Your task to perform on an android device: turn off javascript in the chrome app Image 0: 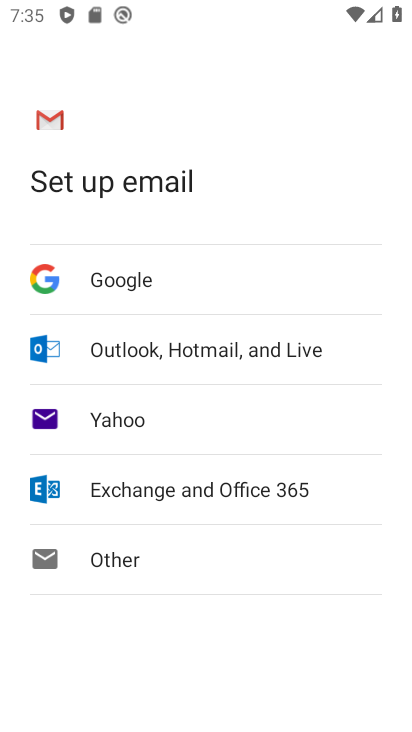
Step 0: press home button
Your task to perform on an android device: turn off javascript in the chrome app Image 1: 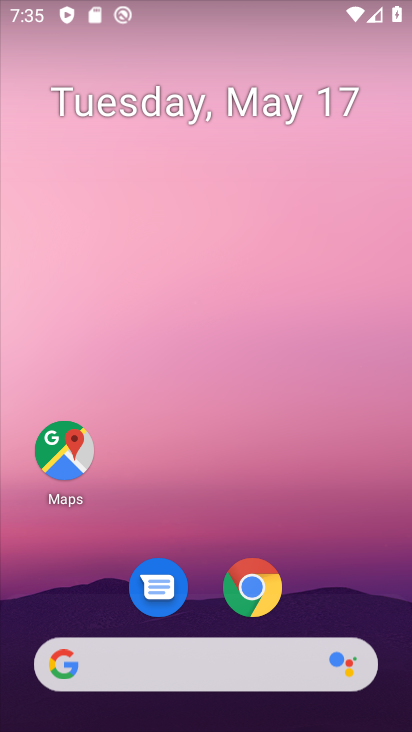
Step 1: click (275, 591)
Your task to perform on an android device: turn off javascript in the chrome app Image 2: 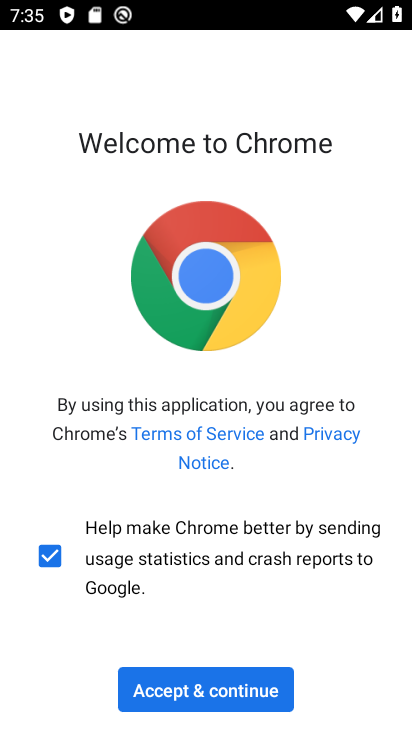
Step 2: click (229, 679)
Your task to perform on an android device: turn off javascript in the chrome app Image 3: 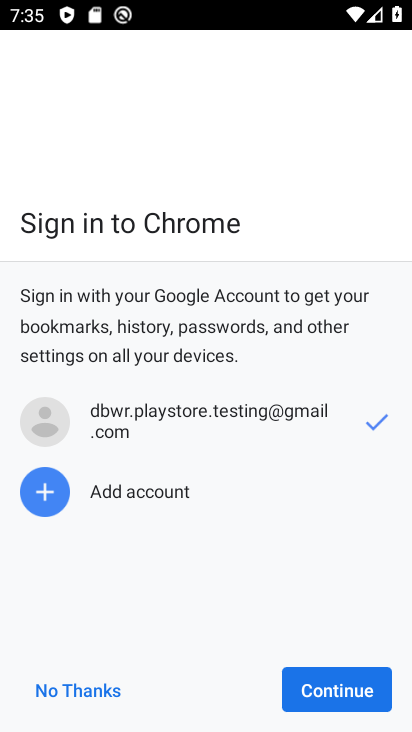
Step 3: click (323, 682)
Your task to perform on an android device: turn off javascript in the chrome app Image 4: 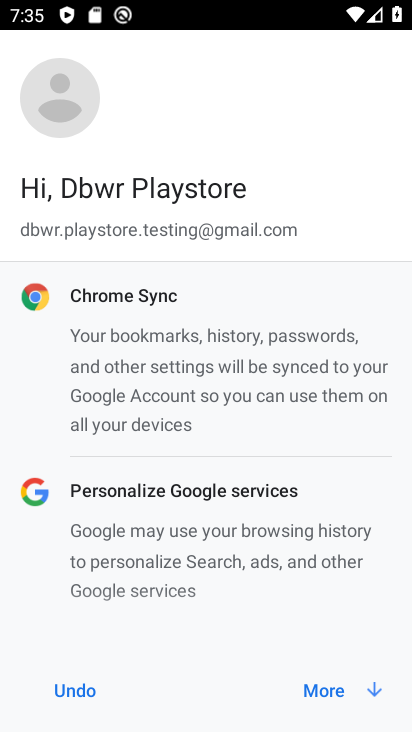
Step 4: click (323, 680)
Your task to perform on an android device: turn off javascript in the chrome app Image 5: 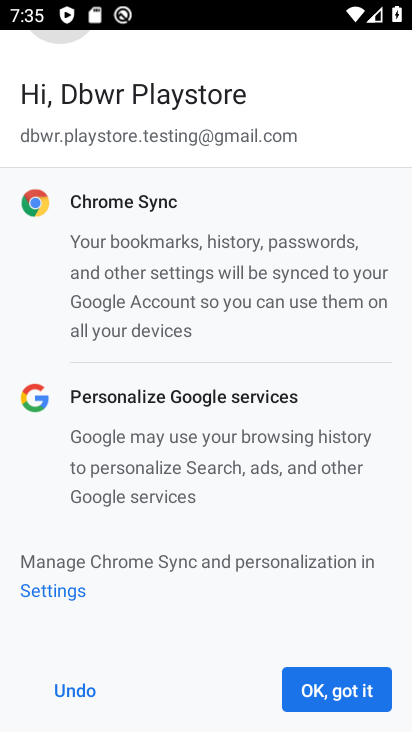
Step 5: click (322, 679)
Your task to perform on an android device: turn off javascript in the chrome app Image 6: 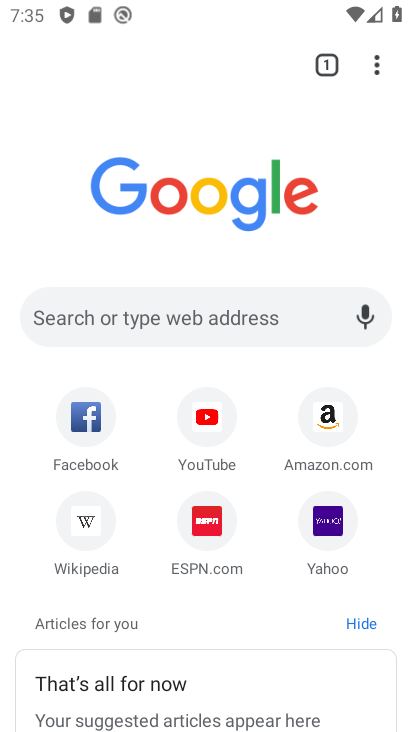
Step 6: drag from (383, 64) to (192, 558)
Your task to perform on an android device: turn off javascript in the chrome app Image 7: 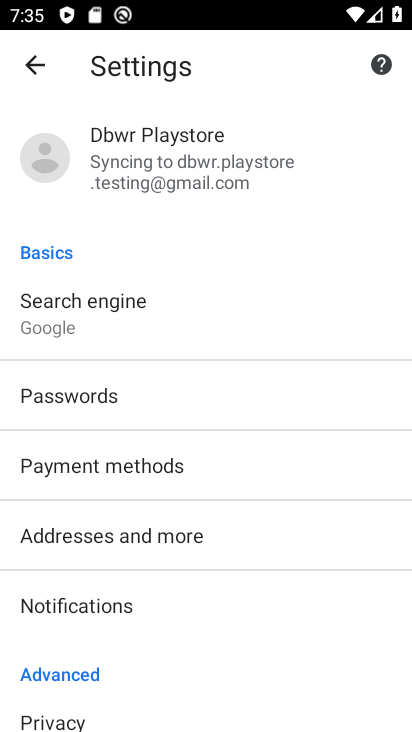
Step 7: drag from (117, 576) to (223, 194)
Your task to perform on an android device: turn off javascript in the chrome app Image 8: 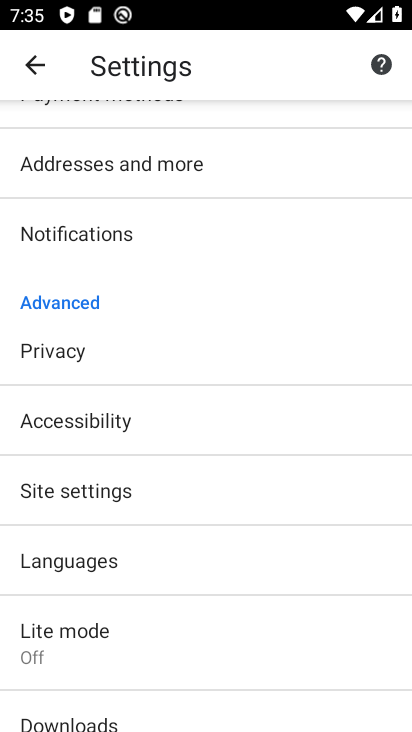
Step 8: click (116, 487)
Your task to perform on an android device: turn off javascript in the chrome app Image 9: 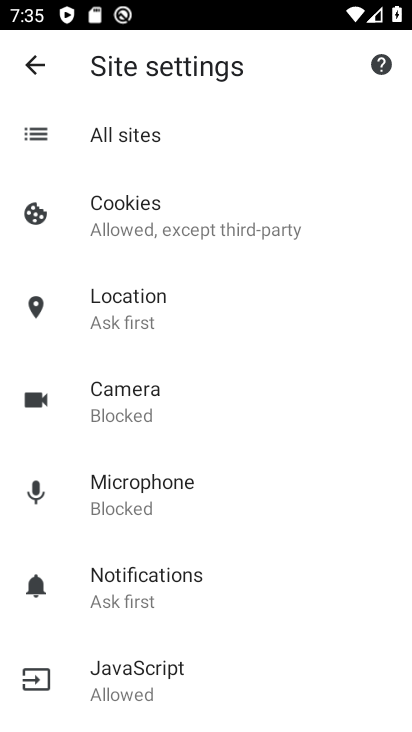
Step 9: click (145, 686)
Your task to perform on an android device: turn off javascript in the chrome app Image 10: 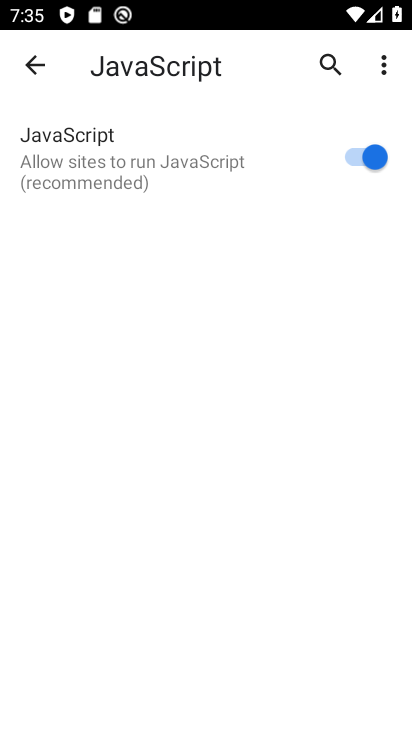
Step 10: click (354, 158)
Your task to perform on an android device: turn off javascript in the chrome app Image 11: 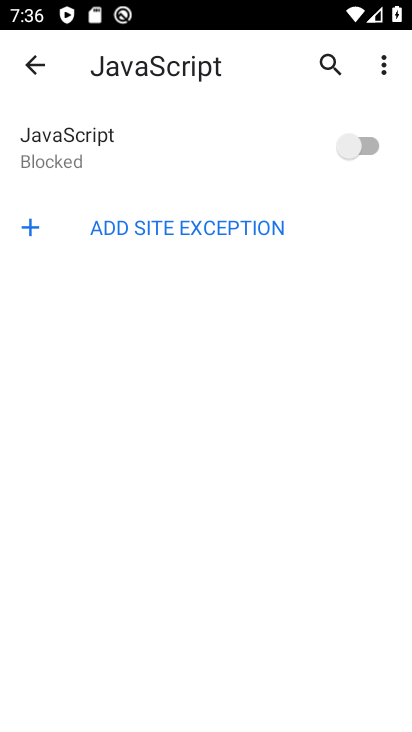
Step 11: press home button
Your task to perform on an android device: turn off javascript in the chrome app Image 12: 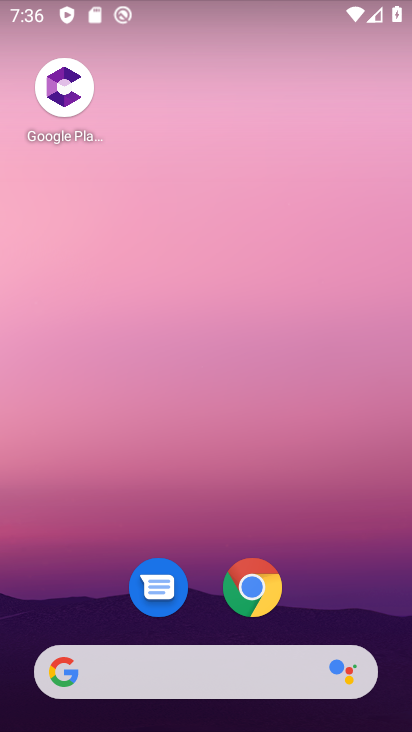
Step 12: click (240, 578)
Your task to perform on an android device: turn off javascript in the chrome app Image 13: 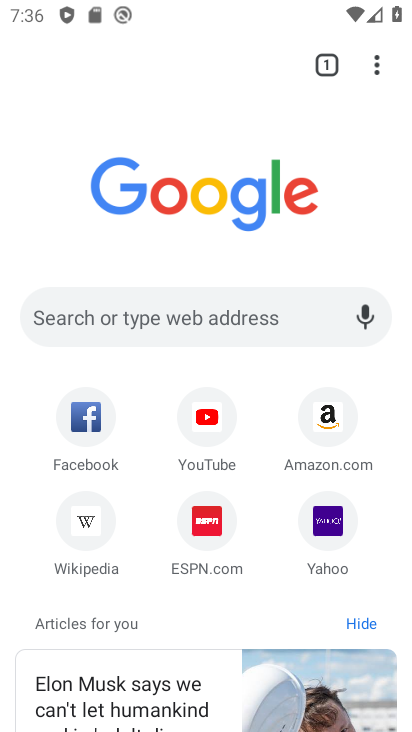
Step 13: click (375, 70)
Your task to perform on an android device: turn off javascript in the chrome app Image 14: 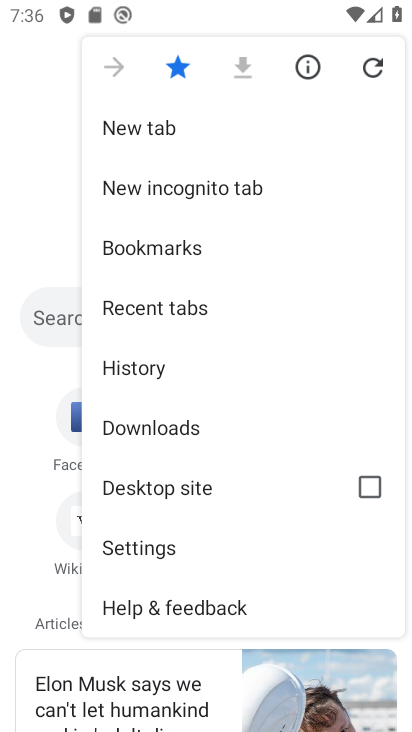
Step 14: click (131, 536)
Your task to perform on an android device: turn off javascript in the chrome app Image 15: 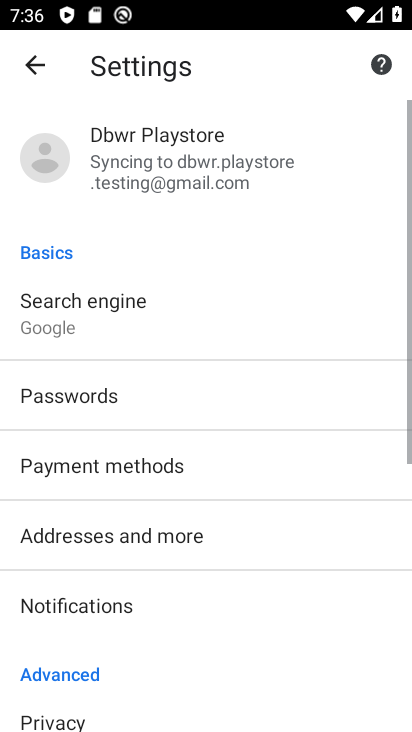
Step 15: drag from (129, 589) to (245, 167)
Your task to perform on an android device: turn off javascript in the chrome app Image 16: 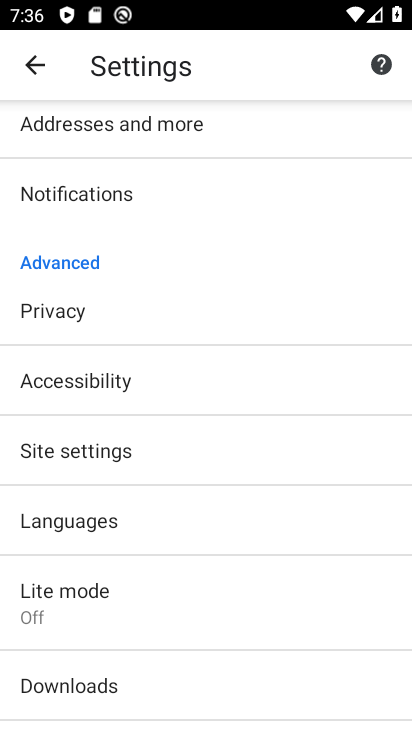
Step 16: click (108, 449)
Your task to perform on an android device: turn off javascript in the chrome app Image 17: 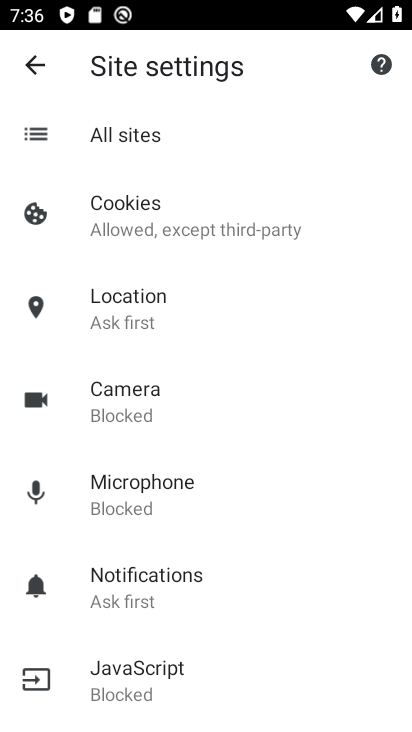
Step 17: click (119, 671)
Your task to perform on an android device: turn off javascript in the chrome app Image 18: 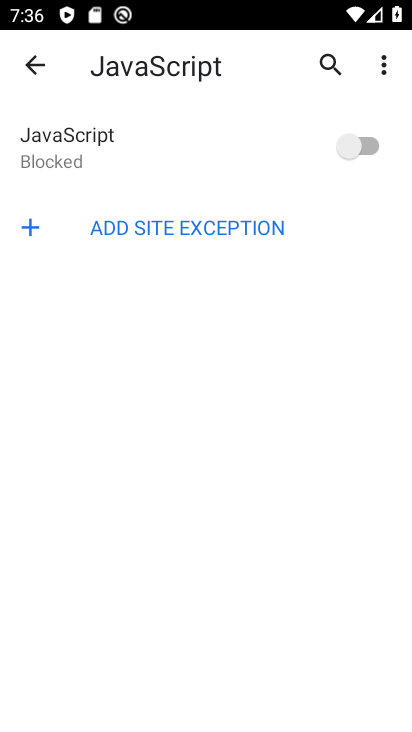
Step 18: task complete